Your task to perform on an android device: Open Maps and search for coffee Image 0: 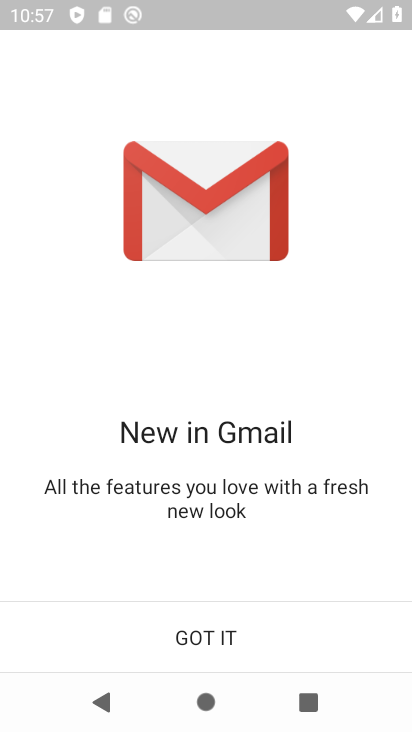
Step 0: press home button
Your task to perform on an android device: Open Maps and search for coffee Image 1: 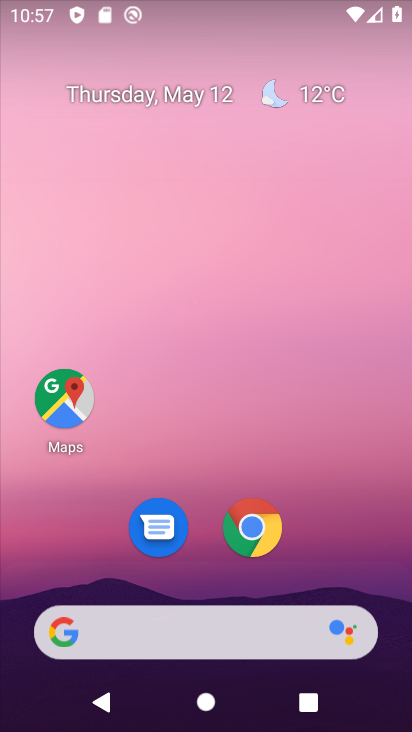
Step 1: click (69, 406)
Your task to perform on an android device: Open Maps and search for coffee Image 2: 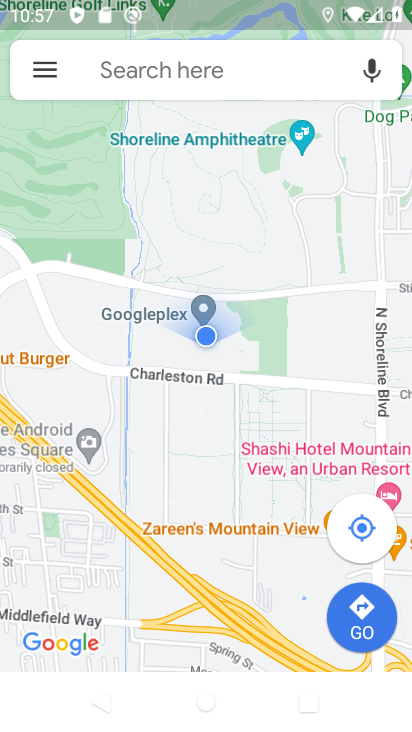
Step 2: click (253, 66)
Your task to perform on an android device: Open Maps and search for coffee Image 3: 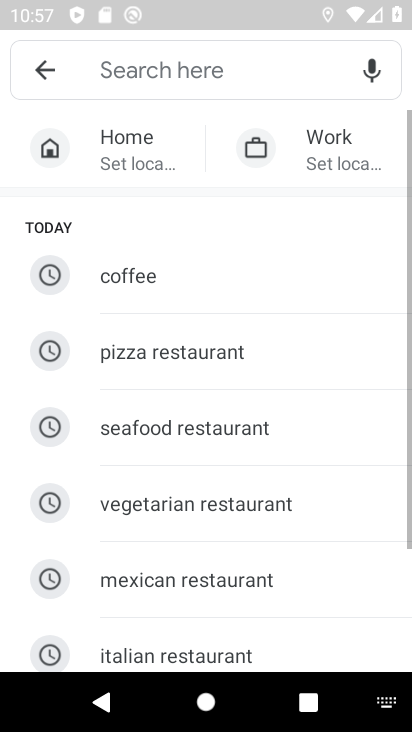
Step 3: click (172, 280)
Your task to perform on an android device: Open Maps and search for coffee Image 4: 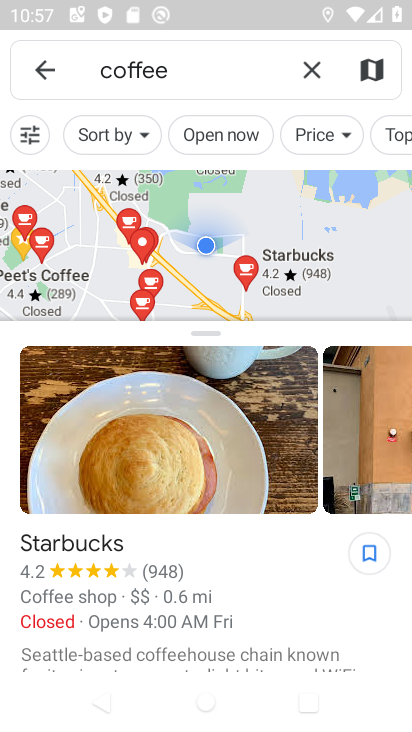
Step 4: task complete